Your task to perform on an android device: install app "Roku - Official Remote Control" Image 0: 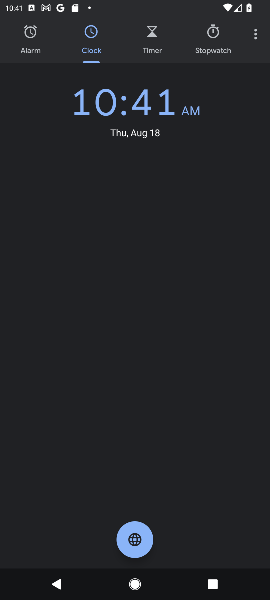
Step 0: press home button
Your task to perform on an android device: install app "Roku - Official Remote Control" Image 1: 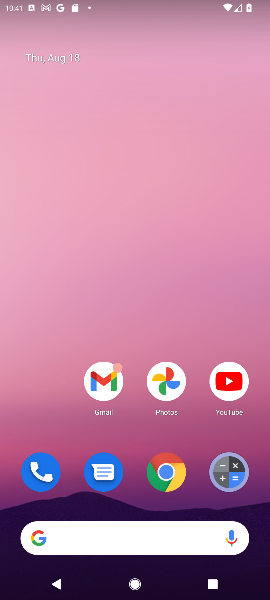
Step 1: drag from (162, 430) to (114, 101)
Your task to perform on an android device: install app "Roku - Official Remote Control" Image 2: 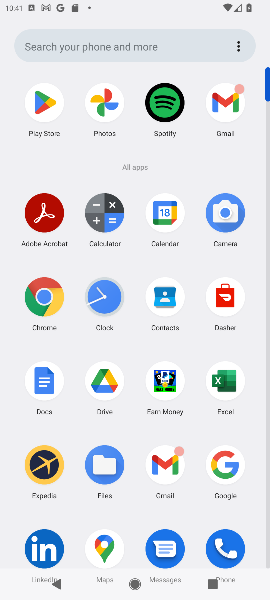
Step 2: drag from (131, 429) to (107, 275)
Your task to perform on an android device: install app "Roku - Official Remote Control" Image 3: 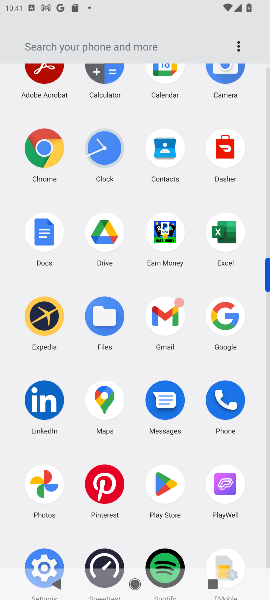
Step 3: click (157, 492)
Your task to perform on an android device: install app "Roku - Official Remote Control" Image 4: 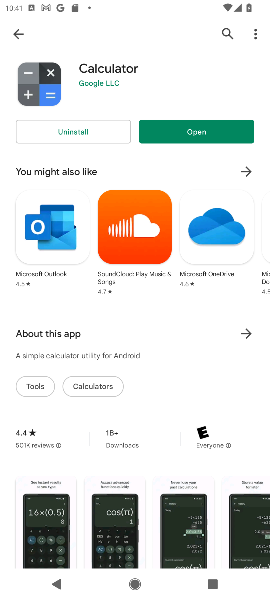
Step 4: click (224, 32)
Your task to perform on an android device: install app "Roku - Official Remote Control" Image 5: 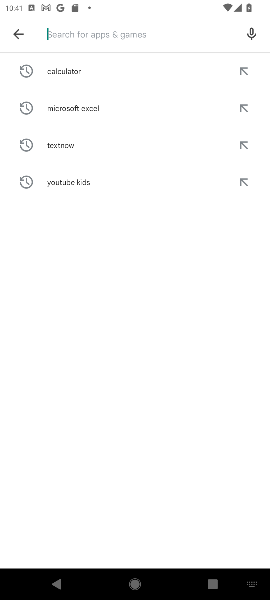
Step 5: type "roku"
Your task to perform on an android device: install app "Roku - Official Remote Control" Image 6: 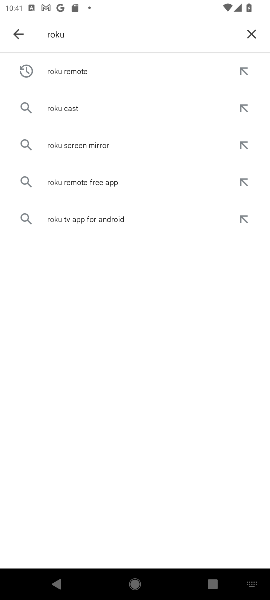
Step 6: click (84, 64)
Your task to perform on an android device: install app "Roku - Official Remote Control" Image 7: 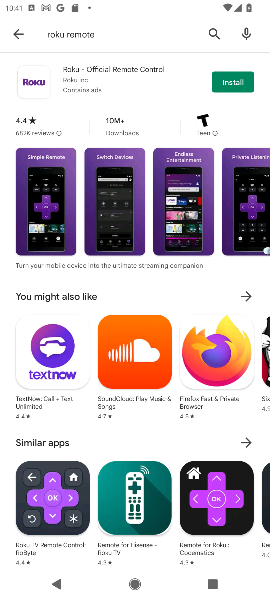
Step 7: click (233, 82)
Your task to perform on an android device: install app "Roku - Official Remote Control" Image 8: 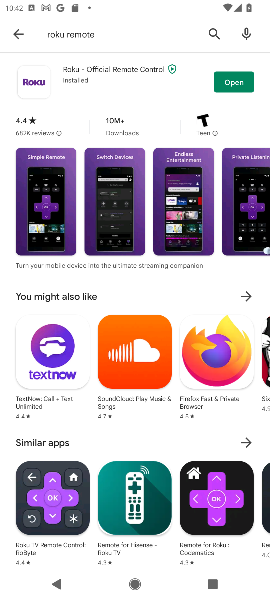
Step 8: task complete